Your task to perform on an android device: Turn on the flashlight Image 0: 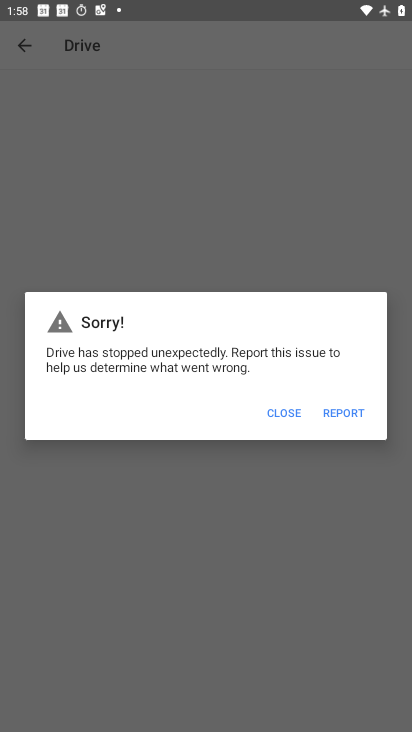
Step 0: press home button
Your task to perform on an android device: Turn on the flashlight Image 1: 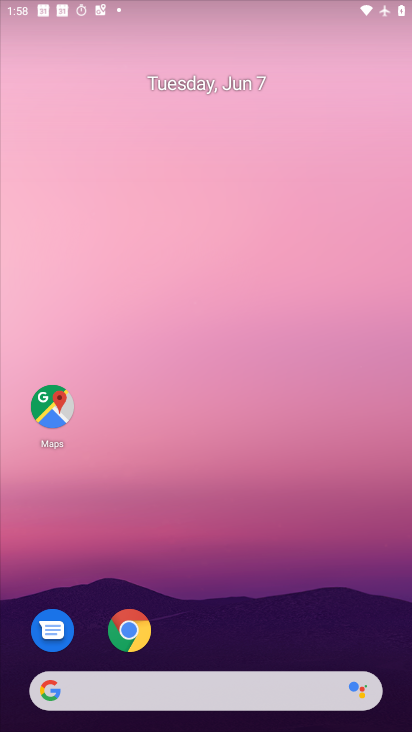
Step 1: drag from (333, 593) to (196, 72)
Your task to perform on an android device: Turn on the flashlight Image 2: 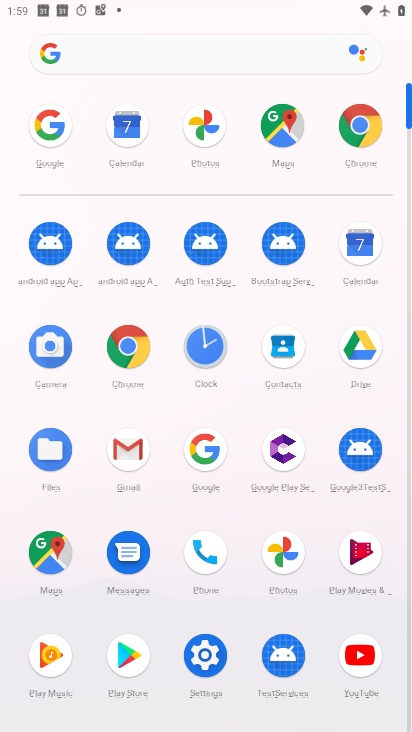
Step 2: click (217, 666)
Your task to perform on an android device: Turn on the flashlight Image 3: 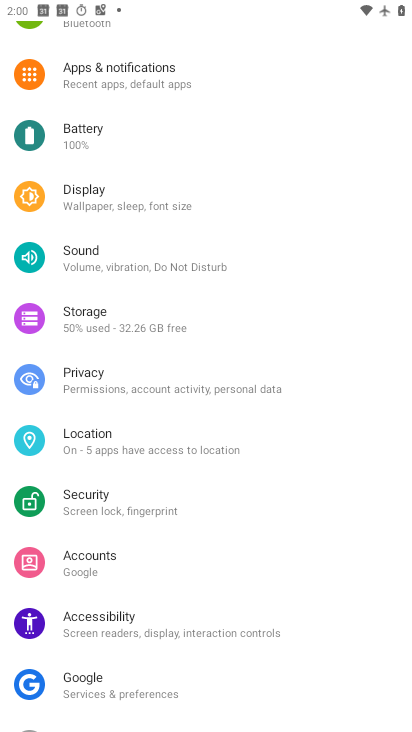
Step 3: task complete